Your task to perform on an android device: change alarm snooze length Image 0: 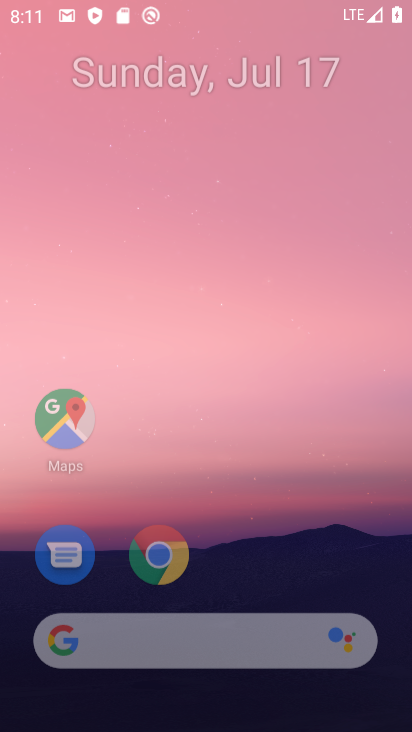
Step 0: press home button
Your task to perform on an android device: change alarm snooze length Image 1: 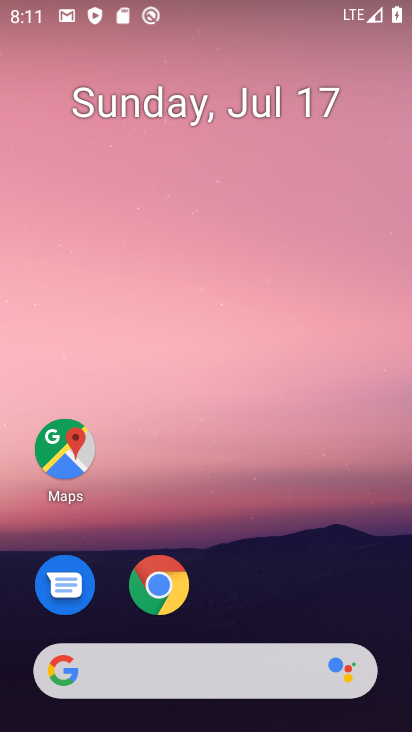
Step 1: drag from (215, 631) to (250, 101)
Your task to perform on an android device: change alarm snooze length Image 2: 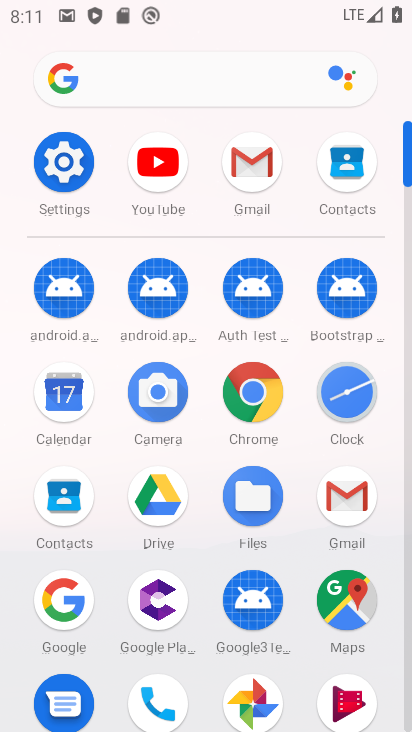
Step 2: click (342, 381)
Your task to perform on an android device: change alarm snooze length Image 3: 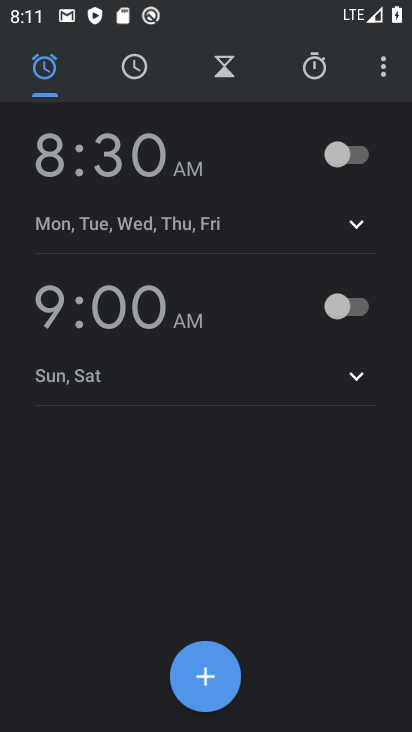
Step 3: click (383, 59)
Your task to perform on an android device: change alarm snooze length Image 4: 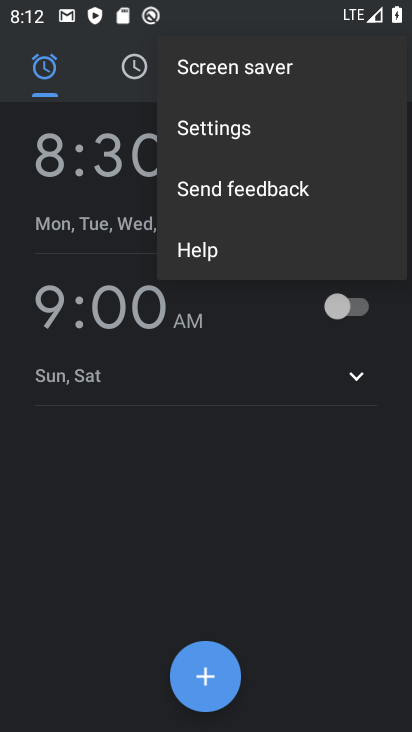
Step 4: click (235, 132)
Your task to perform on an android device: change alarm snooze length Image 5: 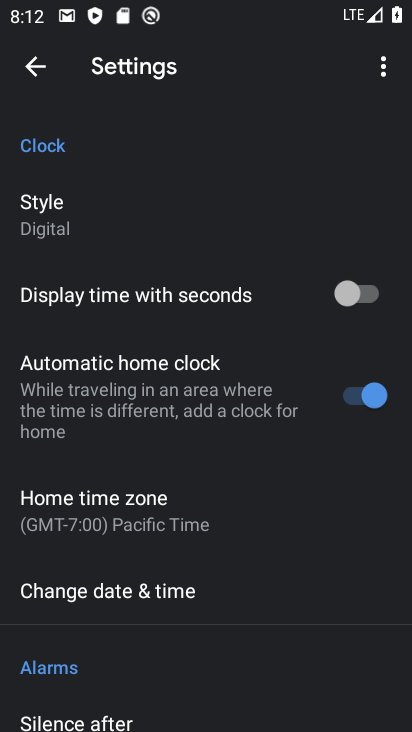
Step 5: drag from (194, 531) to (292, 123)
Your task to perform on an android device: change alarm snooze length Image 6: 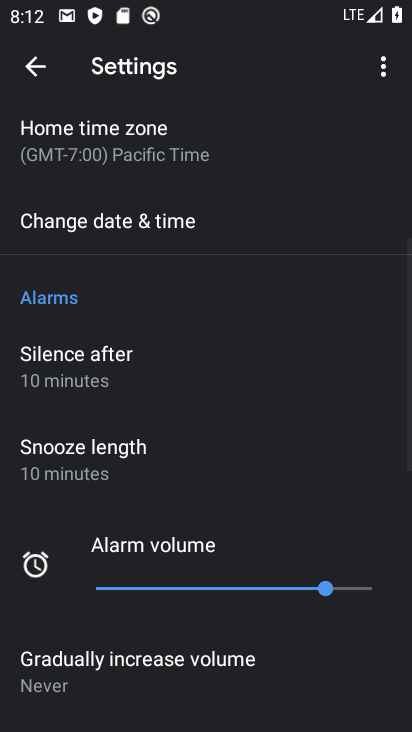
Step 6: click (113, 463)
Your task to perform on an android device: change alarm snooze length Image 7: 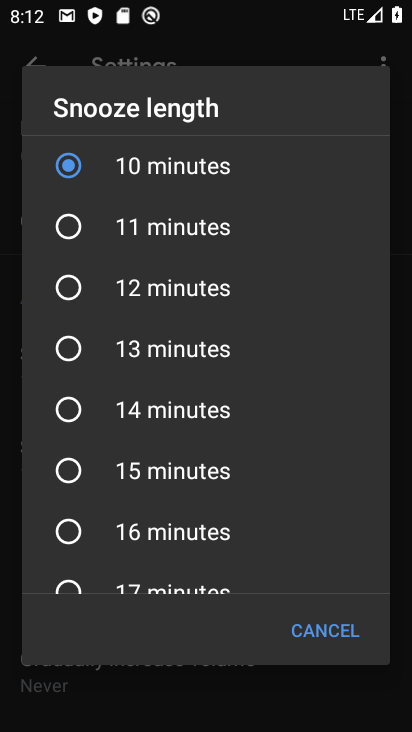
Step 7: click (69, 471)
Your task to perform on an android device: change alarm snooze length Image 8: 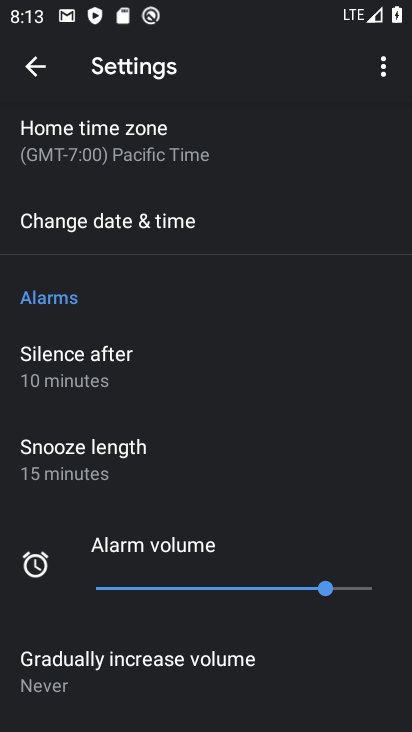
Step 8: task complete